Your task to perform on an android device: add a label to a message in the gmail app Image 0: 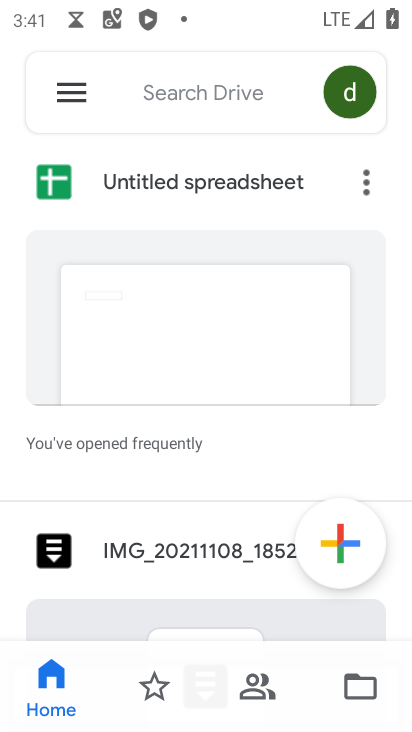
Step 0: press home button
Your task to perform on an android device: add a label to a message in the gmail app Image 1: 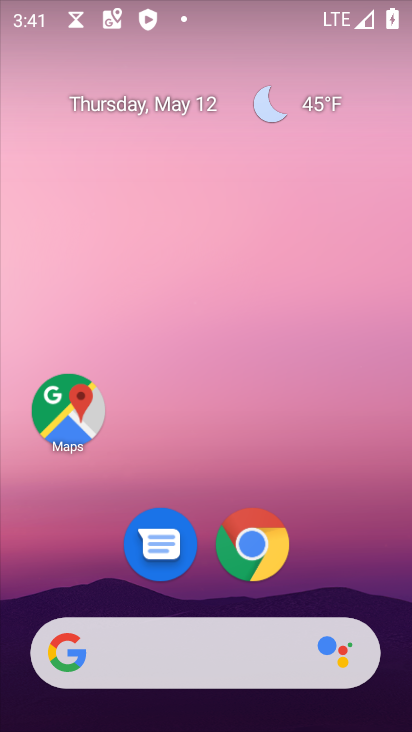
Step 1: drag from (203, 590) to (161, 121)
Your task to perform on an android device: add a label to a message in the gmail app Image 2: 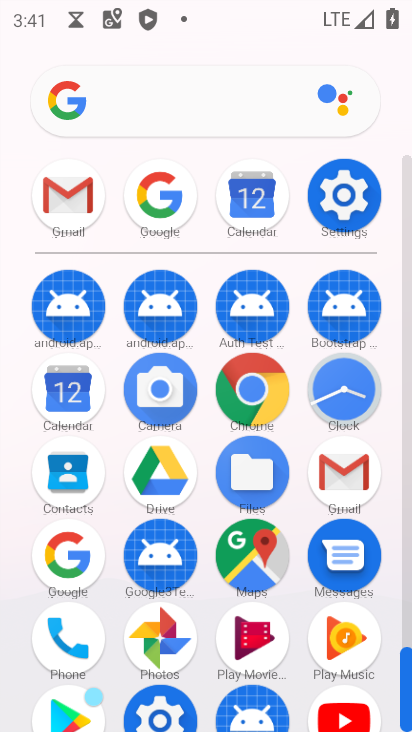
Step 2: click (349, 475)
Your task to perform on an android device: add a label to a message in the gmail app Image 3: 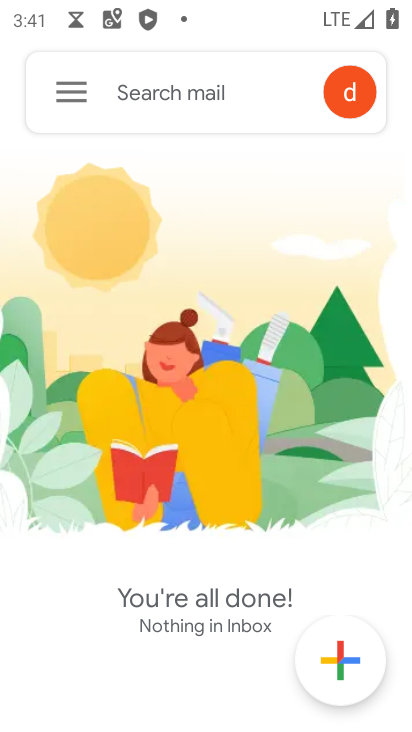
Step 3: click (77, 93)
Your task to perform on an android device: add a label to a message in the gmail app Image 4: 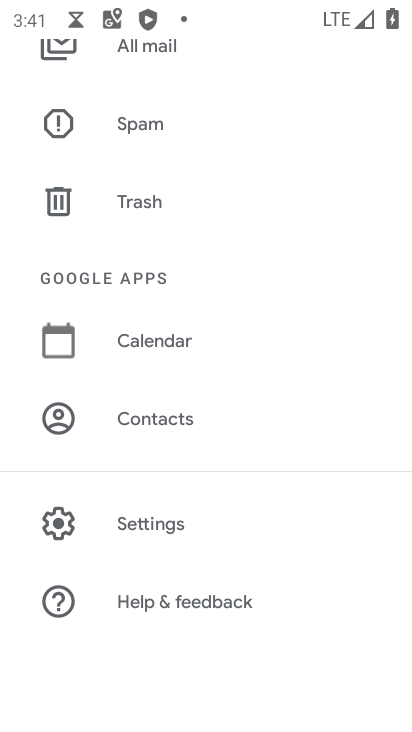
Step 4: click (163, 534)
Your task to perform on an android device: add a label to a message in the gmail app Image 5: 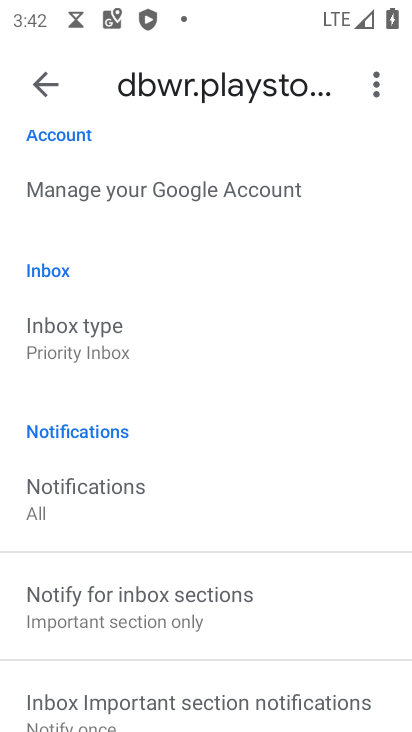
Step 5: drag from (184, 643) to (175, 407)
Your task to perform on an android device: add a label to a message in the gmail app Image 6: 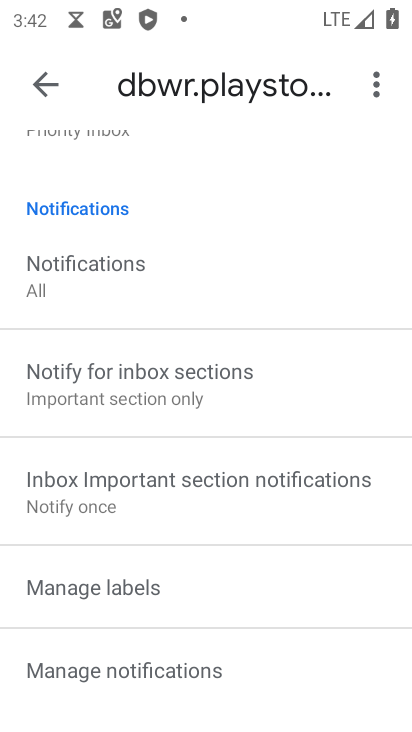
Step 6: click (42, 97)
Your task to perform on an android device: add a label to a message in the gmail app Image 7: 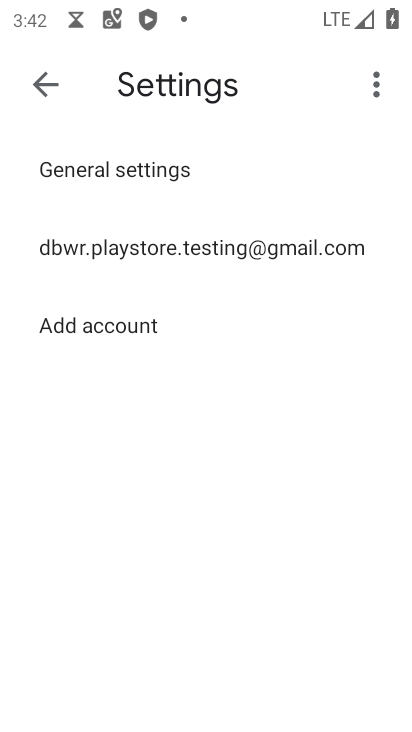
Step 7: click (47, 89)
Your task to perform on an android device: add a label to a message in the gmail app Image 8: 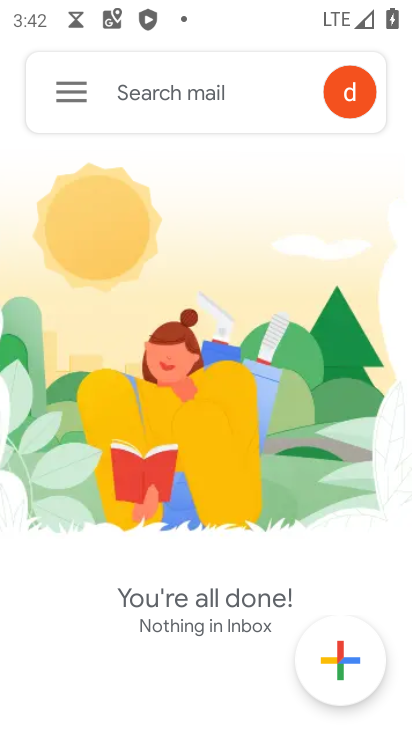
Step 8: click (69, 102)
Your task to perform on an android device: add a label to a message in the gmail app Image 9: 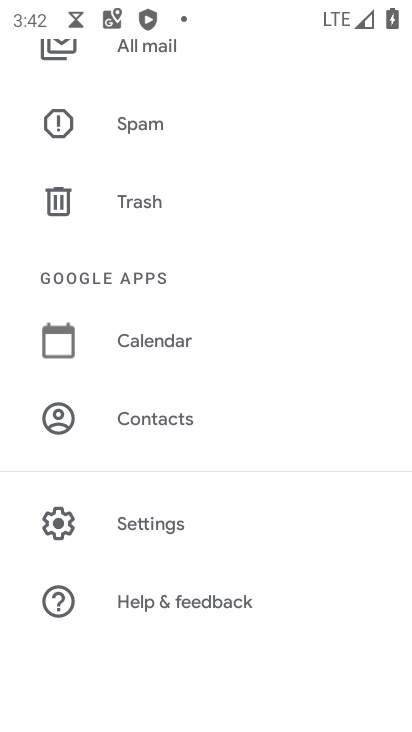
Step 9: drag from (169, 151) to (230, 313)
Your task to perform on an android device: add a label to a message in the gmail app Image 10: 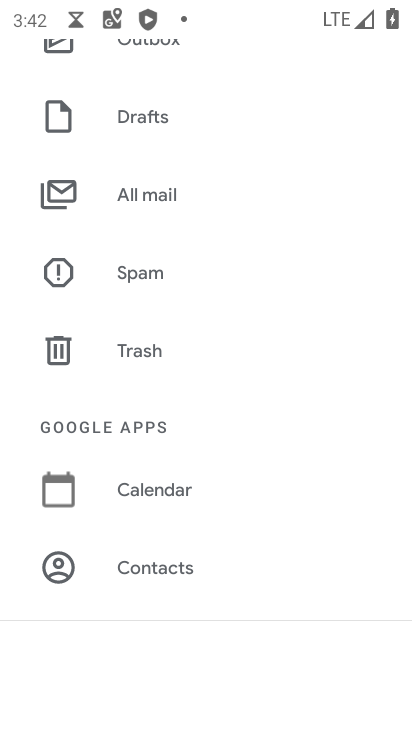
Step 10: click (189, 180)
Your task to perform on an android device: add a label to a message in the gmail app Image 11: 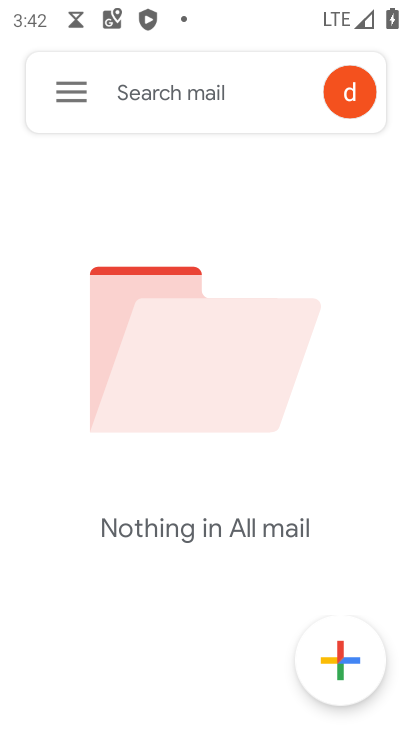
Step 11: task complete